Your task to perform on an android device: change the clock display to digital Image 0: 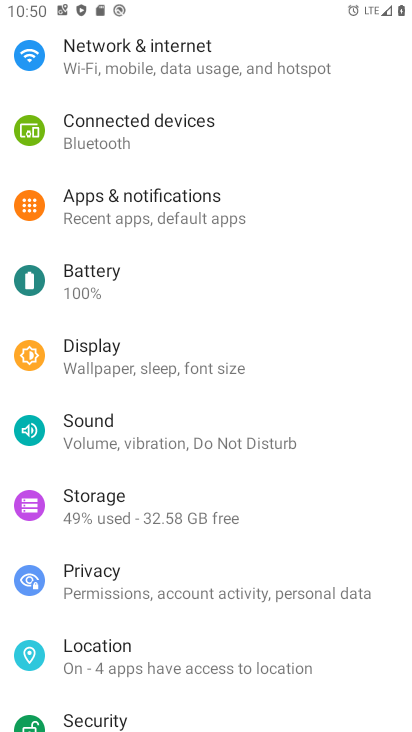
Step 0: press home button
Your task to perform on an android device: change the clock display to digital Image 1: 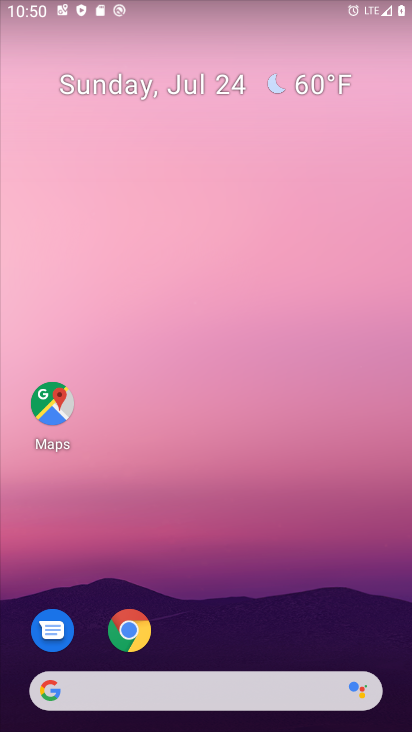
Step 1: drag from (218, 610) to (262, 0)
Your task to perform on an android device: change the clock display to digital Image 2: 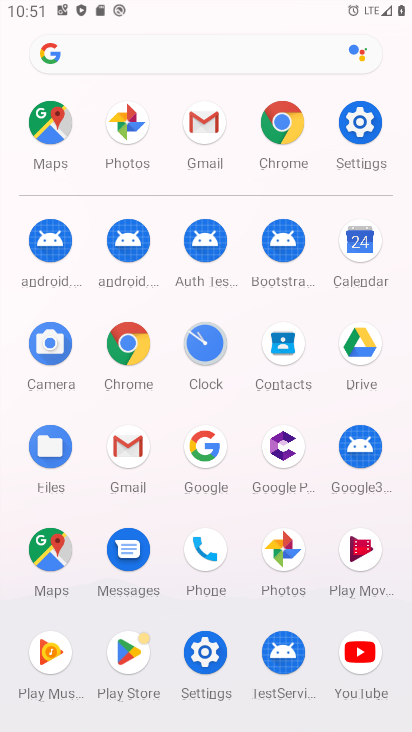
Step 2: click (212, 352)
Your task to perform on an android device: change the clock display to digital Image 3: 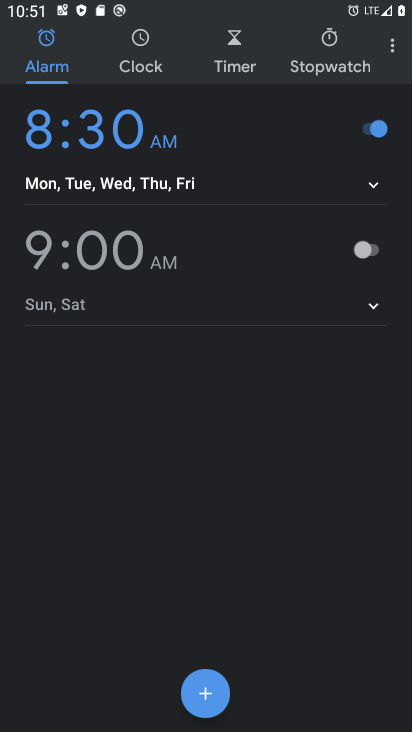
Step 3: click (392, 48)
Your task to perform on an android device: change the clock display to digital Image 4: 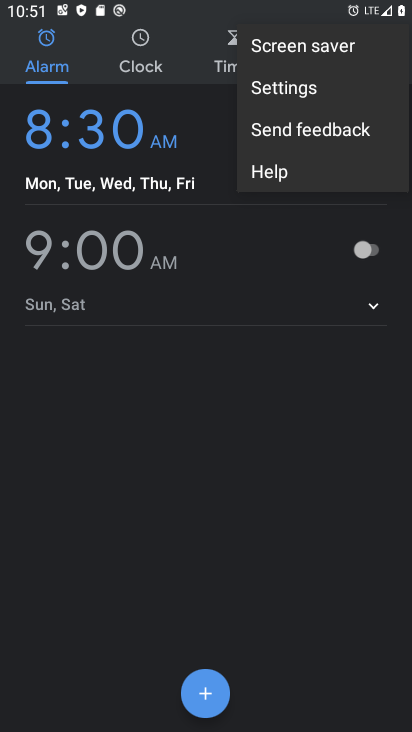
Step 4: click (273, 91)
Your task to perform on an android device: change the clock display to digital Image 5: 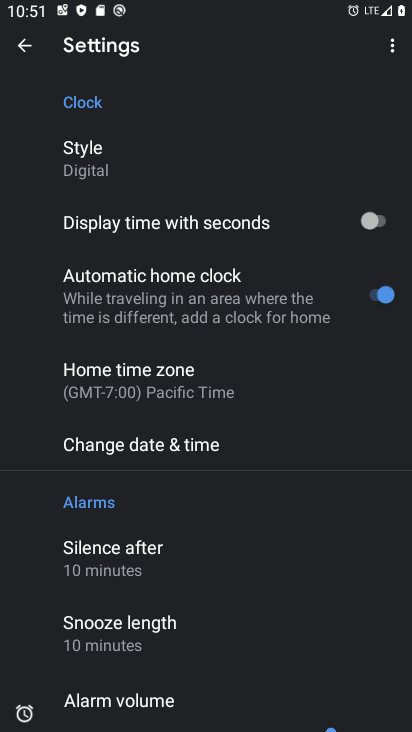
Step 5: task complete